Your task to perform on an android device: open device folders in google photos Image 0: 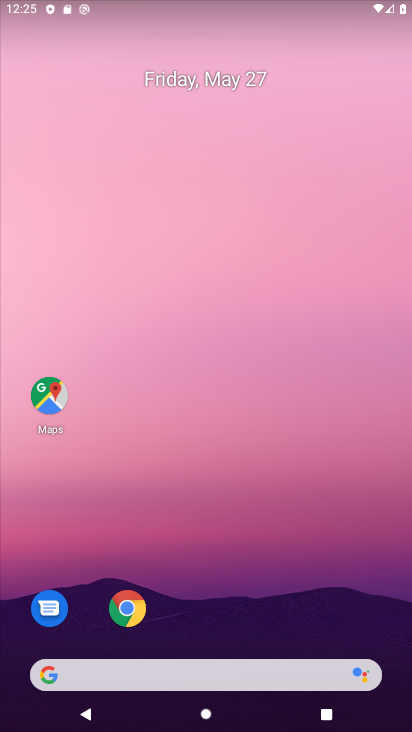
Step 0: drag from (225, 602) to (303, 46)
Your task to perform on an android device: open device folders in google photos Image 1: 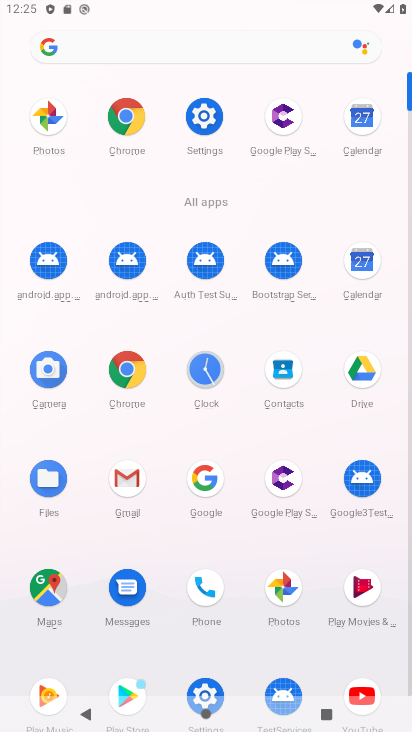
Step 1: click (273, 591)
Your task to perform on an android device: open device folders in google photos Image 2: 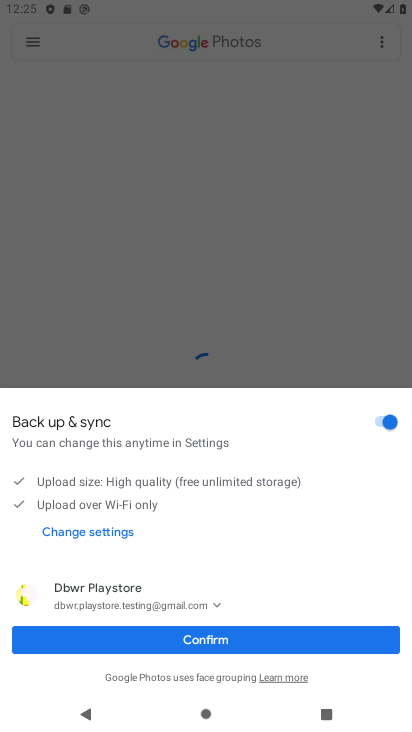
Step 2: click (224, 644)
Your task to perform on an android device: open device folders in google photos Image 3: 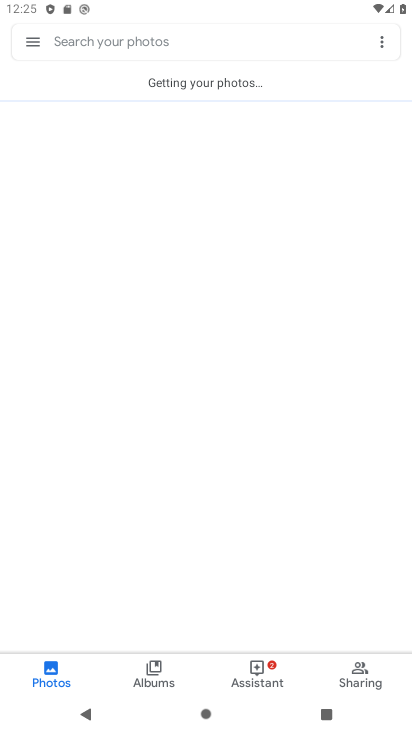
Step 3: click (23, 35)
Your task to perform on an android device: open device folders in google photos Image 4: 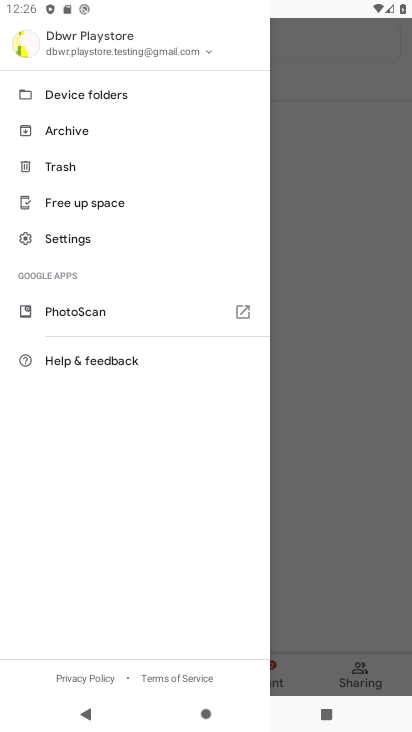
Step 4: click (99, 89)
Your task to perform on an android device: open device folders in google photos Image 5: 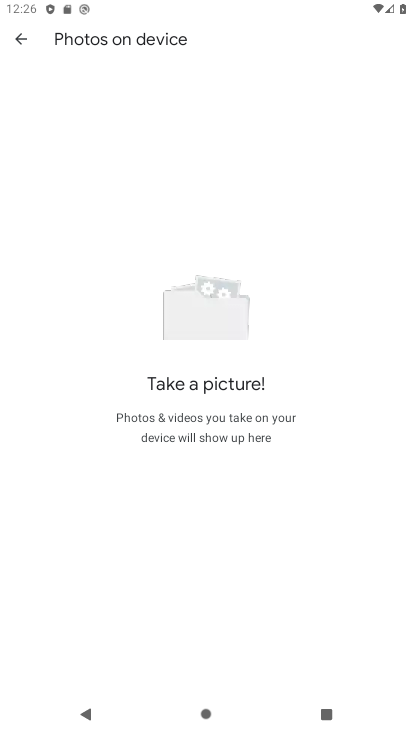
Step 5: task complete